Your task to perform on an android device: change notification settings in the gmail app Image 0: 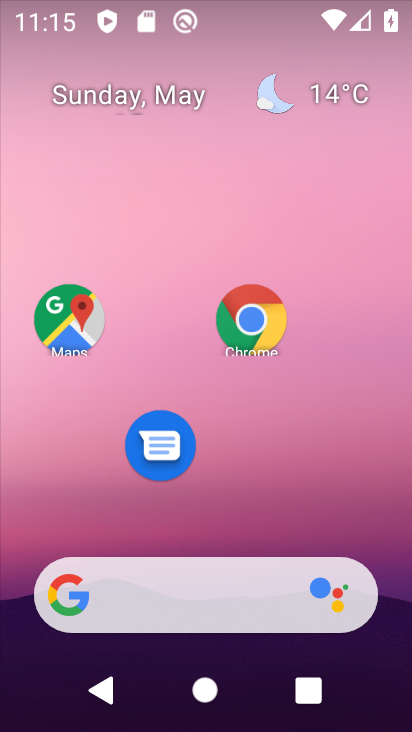
Step 0: press home button
Your task to perform on an android device: change notification settings in the gmail app Image 1: 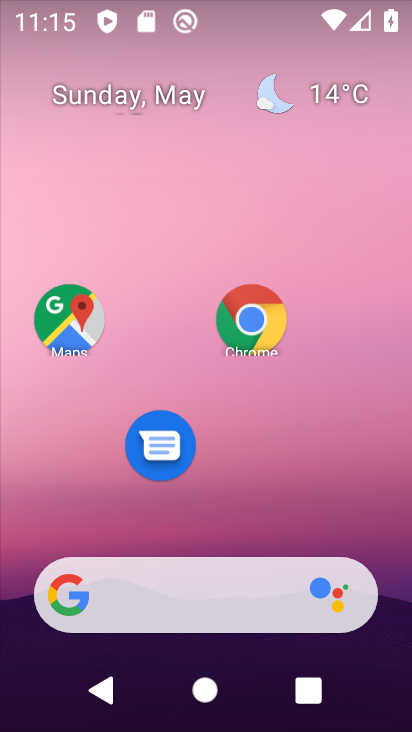
Step 1: drag from (173, 578) to (291, 117)
Your task to perform on an android device: change notification settings in the gmail app Image 2: 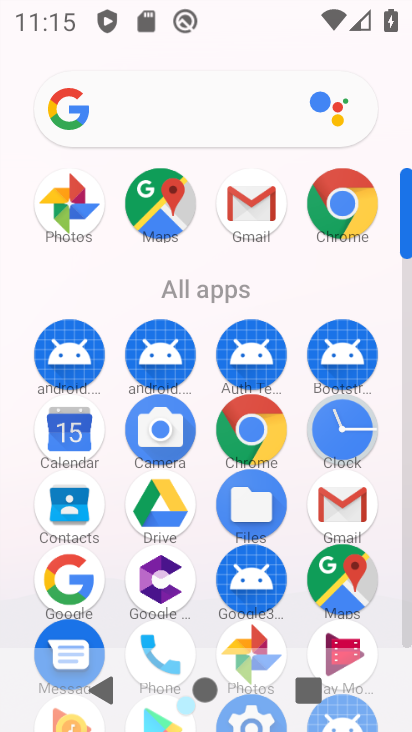
Step 2: click (252, 215)
Your task to perform on an android device: change notification settings in the gmail app Image 3: 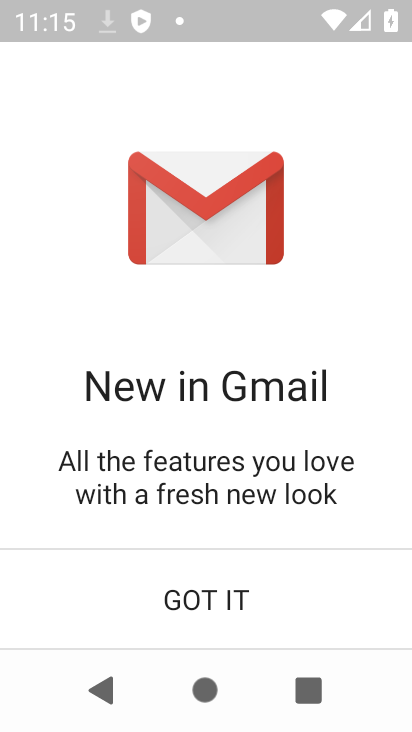
Step 3: click (213, 604)
Your task to perform on an android device: change notification settings in the gmail app Image 4: 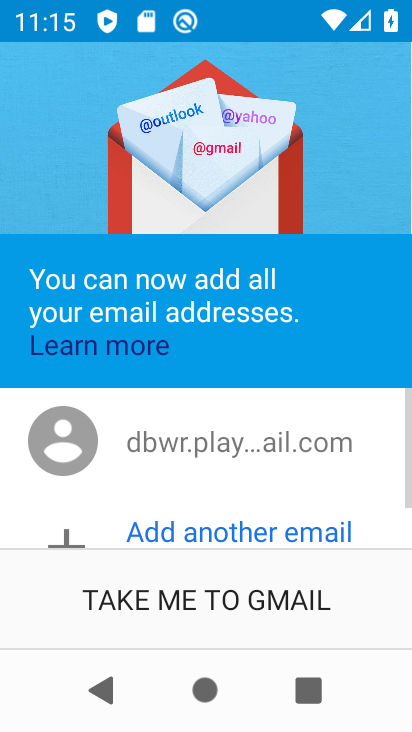
Step 4: click (271, 597)
Your task to perform on an android device: change notification settings in the gmail app Image 5: 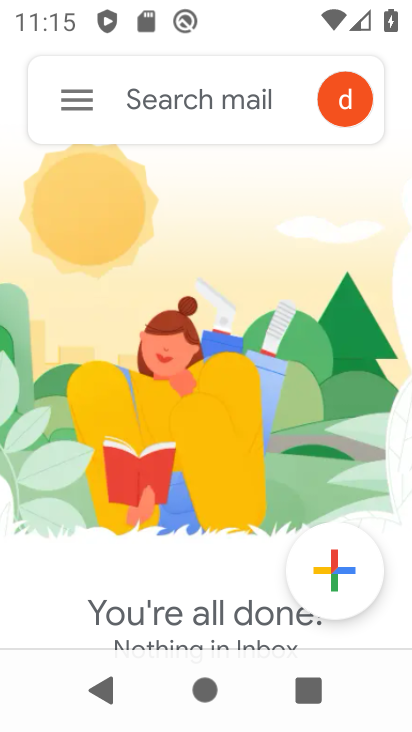
Step 5: click (78, 101)
Your task to perform on an android device: change notification settings in the gmail app Image 6: 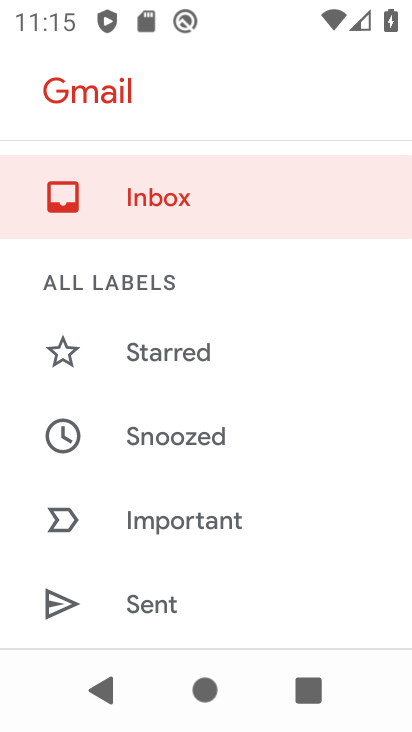
Step 6: drag from (209, 602) to (320, 98)
Your task to perform on an android device: change notification settings in the gmail app Image 7: 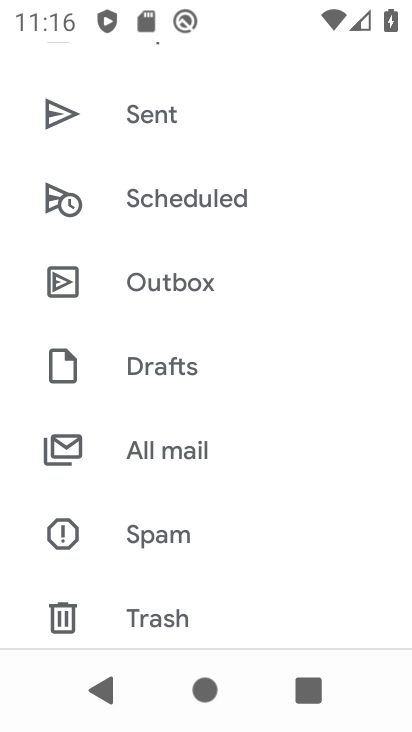
Step 7: drag from (237, 600) to (370, 82)
Your task to perform on an android device: change notification settings in the gmail app Image 8: 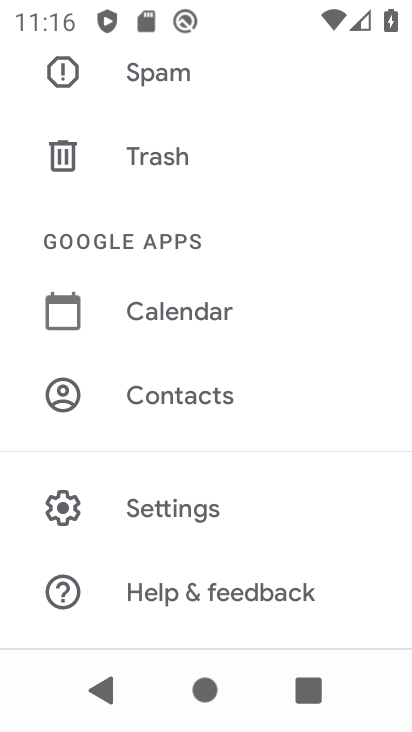
Step 8: click (170, 512)
Your task to perform on an android device: change notification settings in the gmail app Image 9: 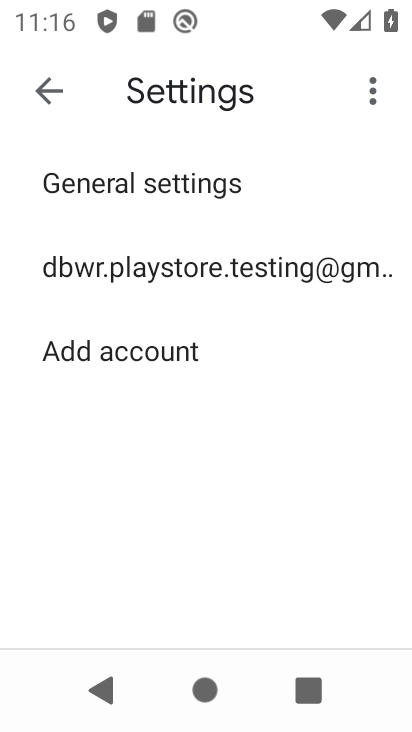
Step 9: click (268, 259)
Your task to perform on an android device: change notification settings in the gmail app Image 10: 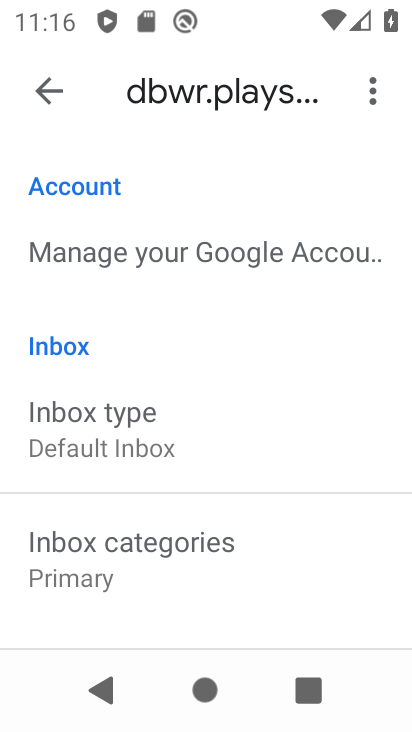
Step 10: drag from (214, 624) to (252, 282)
Your task to perform on an android device: change notification settings in the gmail app Image 11: 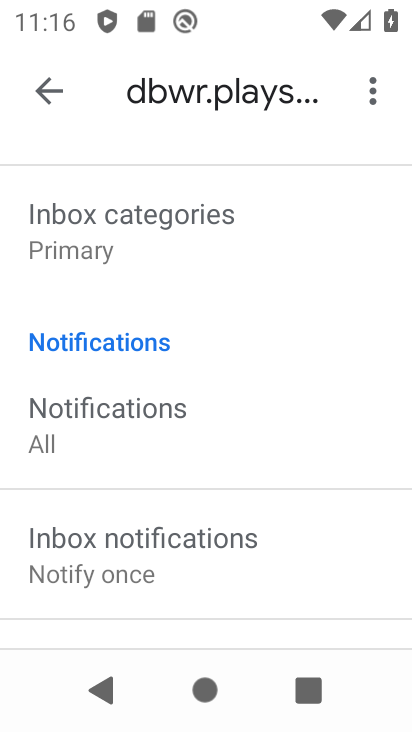
Step 11: click (117, 431)
Your task to perform on an android device: change notification settings in the gmail app Image 12: 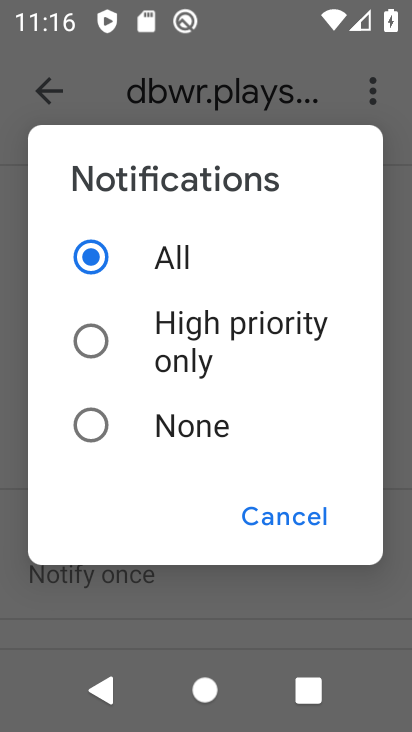
Step 12: click (84, 427)
Your task to perform on an android device: change notification settings in the gmail app Image 13: 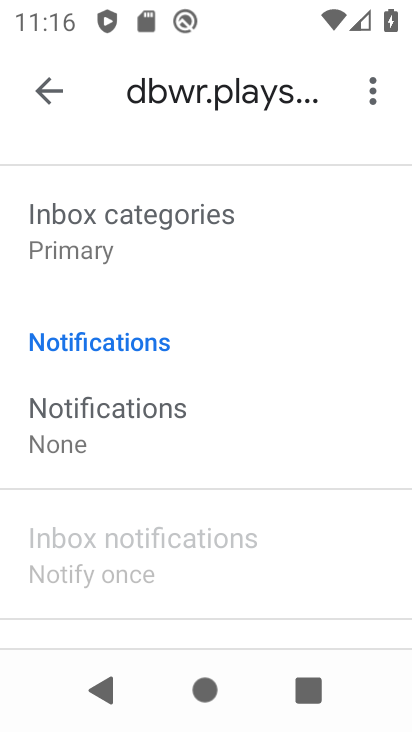
Step 13: task complete